Your task to perform on an android device: check storage Image 0: 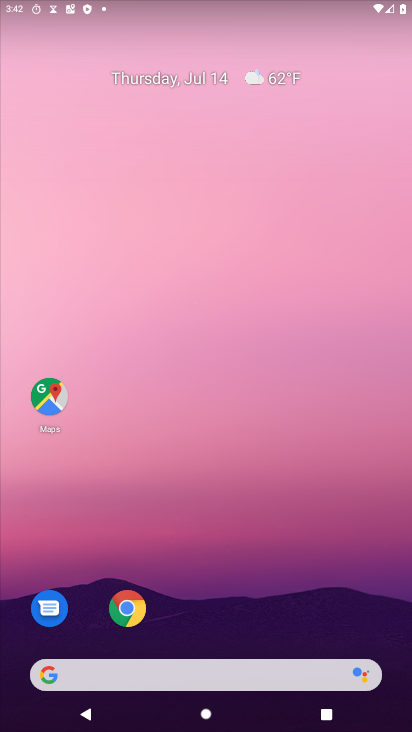
Step 0: drag from (207, 667) to (179, 88)
Your task to perform on an android device: check storage Image 1: 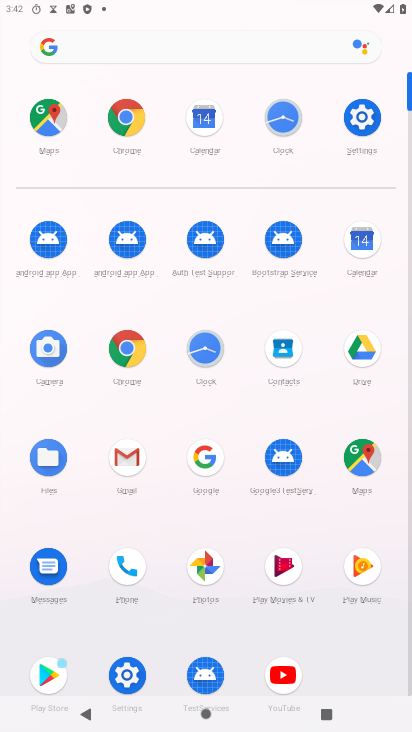
Step 1: click (138, 698)
Your task to perform on an android device: check storage Image 2: 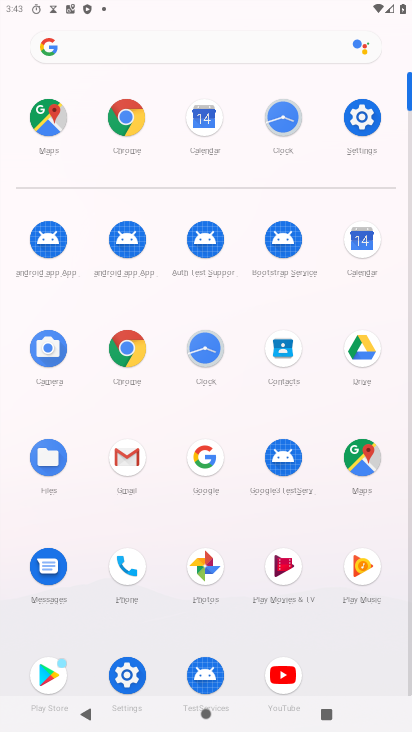
Step 2: click (133, 676)
Your task to perform on an android device: check storage Image 3: 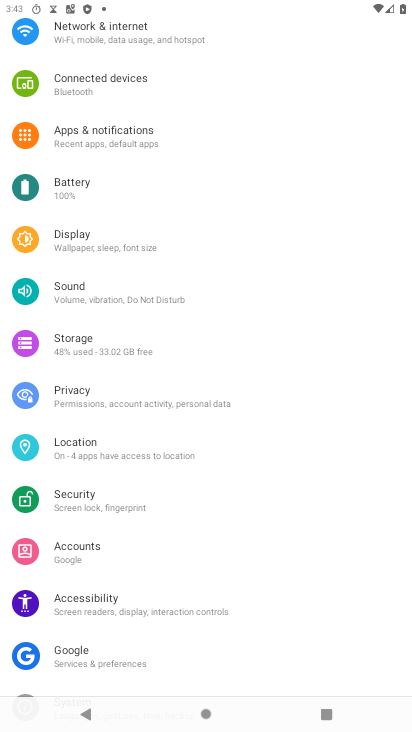
Step 3: click (92, 351)
Your task to perform on an android device: check storage Image 4: 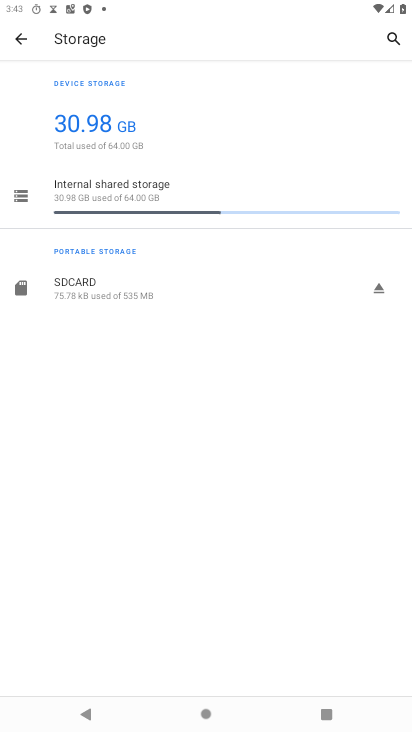
Step 4: task complete